Your task to perform on an android device: Go to Google Image 0: 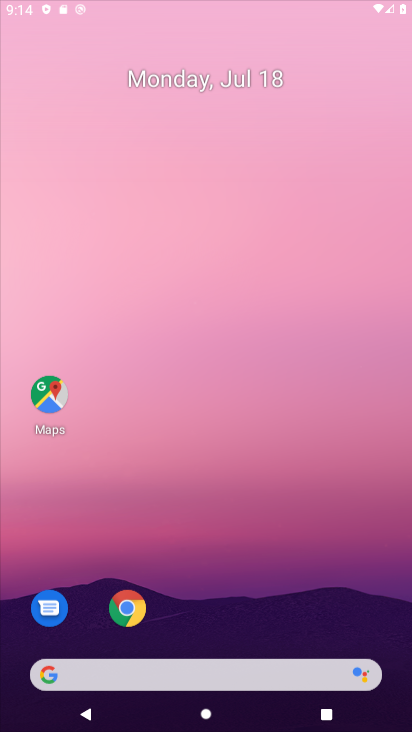
Step 0: click (232, 210)
Your task to perform on an android device: Go to Google Image 1: 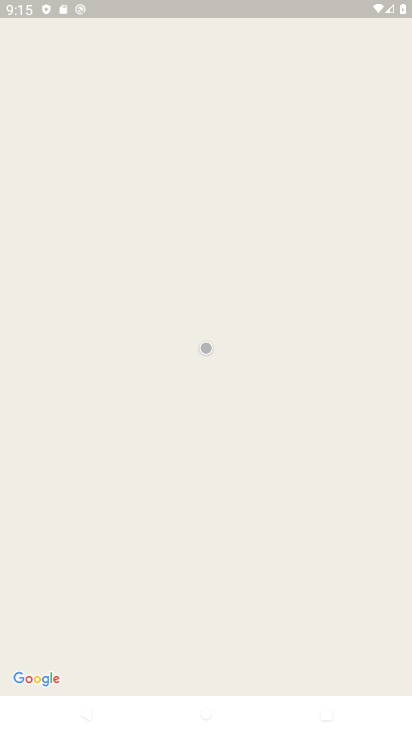
Step 1: press back button
Your task to perform on an android device: Go to Google Image 2: 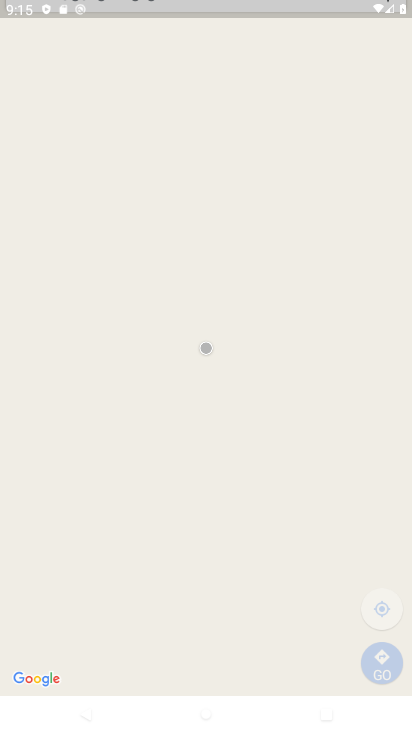
Step 2: press back button
Your task to perform on an android device: Go to Google Image 3: 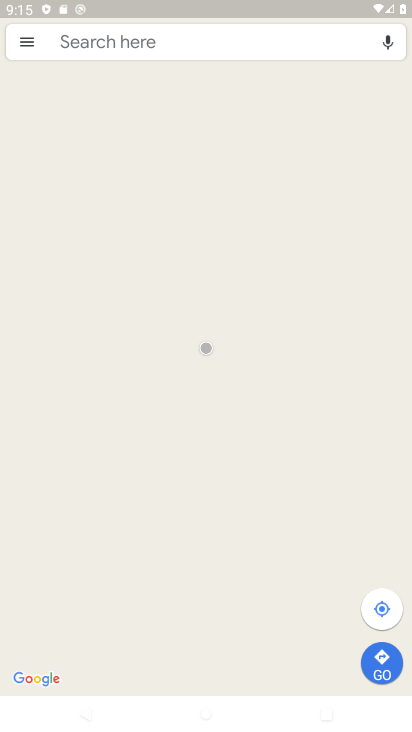
Step 3: press back button
Your task to perform on an android device: Go to Google Image 4: 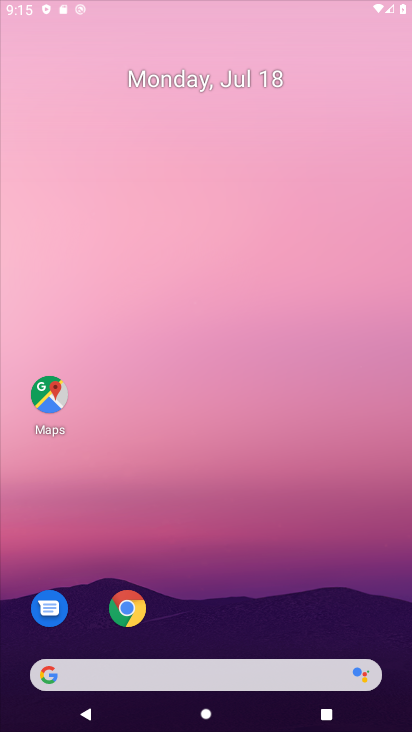
Step 4: press home button
Your task to perform on an android device: Go to Google Image 5: 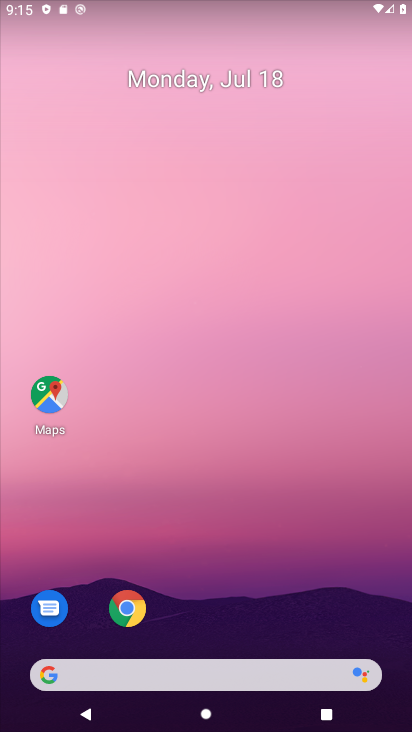
Step 5: drag from (213, 657) to (61, 160)
Your task to perform on an android device: Go to Google Image 6: 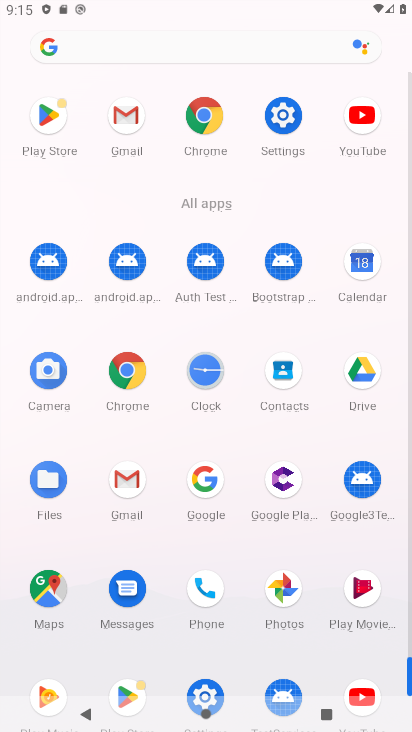
Step 6: click (205, 468)
Your task to perform on an android device: Go to Google Image 7: 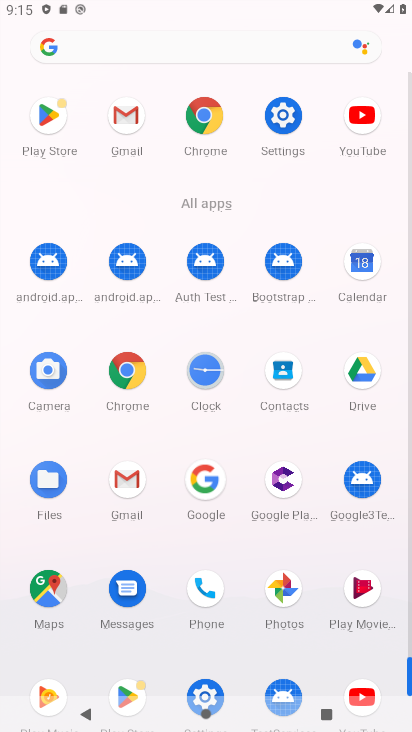
Step 7: click (207, 469)
Your task to perform on an android device: Go to Google Image 8: 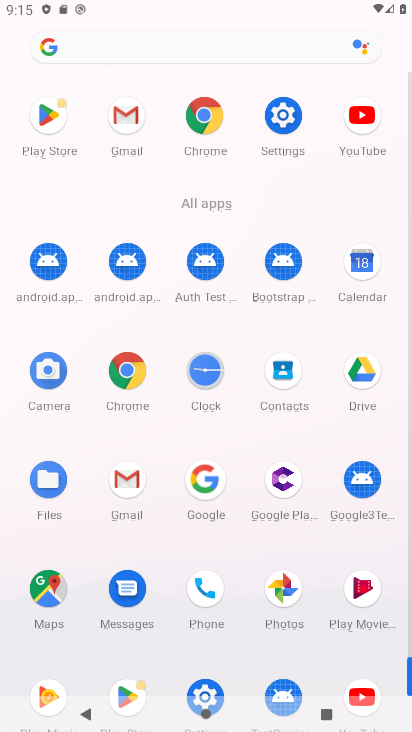
Step 8: click (208, 469)
Your task to perform on an android device: Go to Google Image 9: 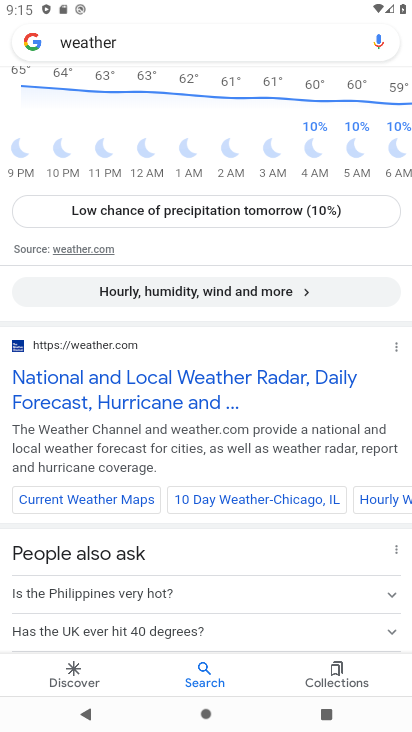
Step 9: click (211, 477)
Your task to perform on an android device: Go to Google Image 10: 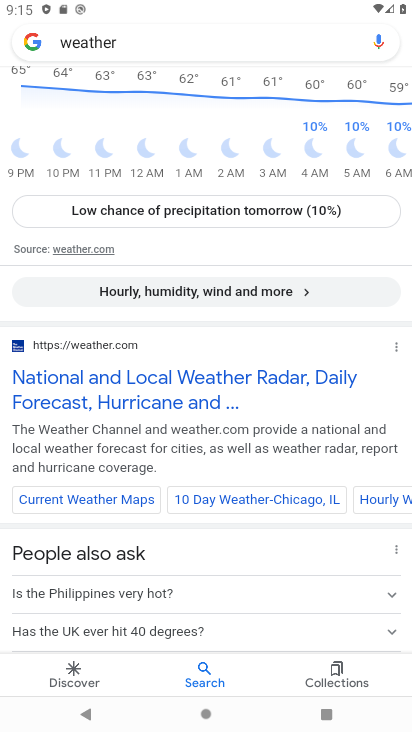
Step 10: click (220, 463)
Your task to perform on an android device: Go to Google Image 11: 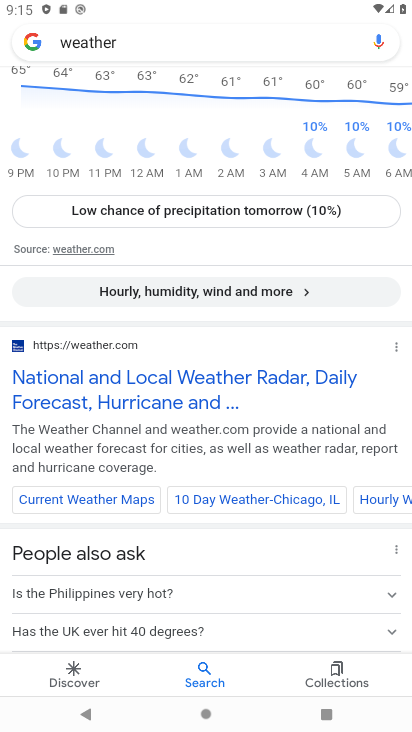
Step 11: task complete